Your task to perform on an android device: turn pop-ups off in chrome Image 0: 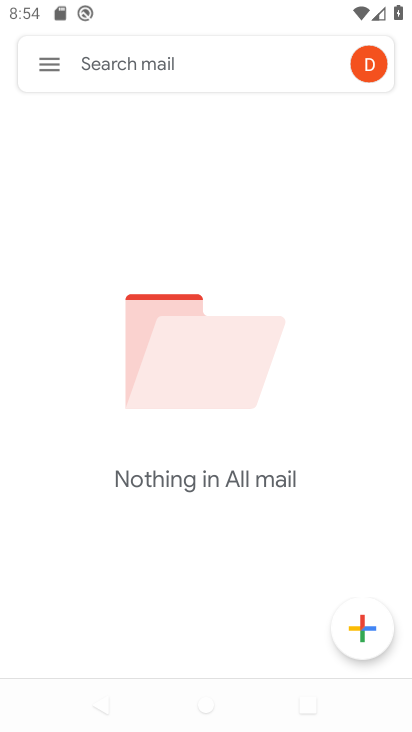
Step 0: drag from (348, 575) to (293, 162)
Your task to perform on an android device: turn pop-ups off in chrome Image 1: 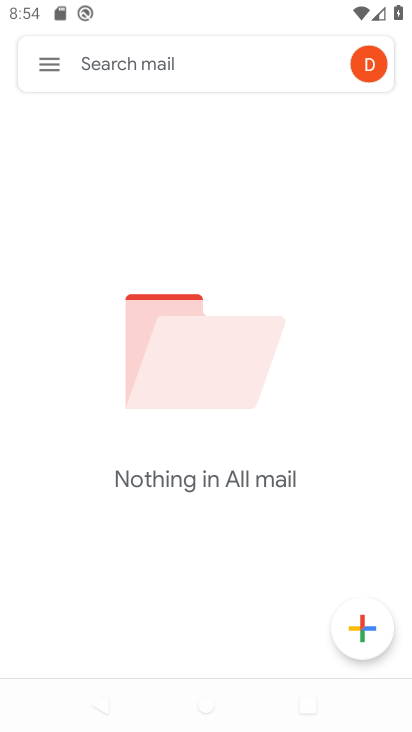
Step 1: press back button
Your task to perform on an android device: turn pop-ups off in chrome Image 2: 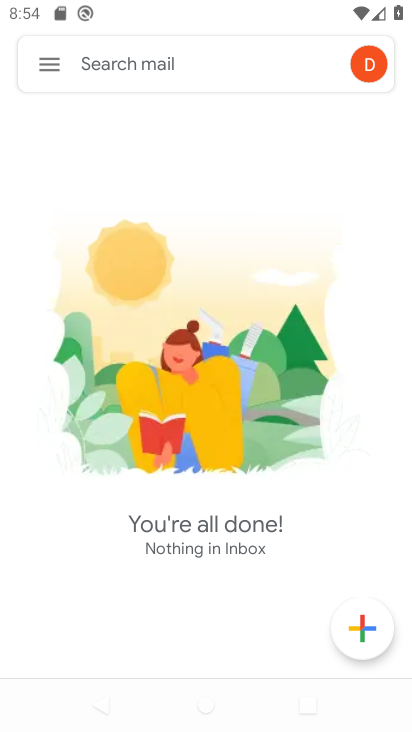
Step 2: press home button
Your task to perform on an android device: turn pop-ups off in chrome Image 3: 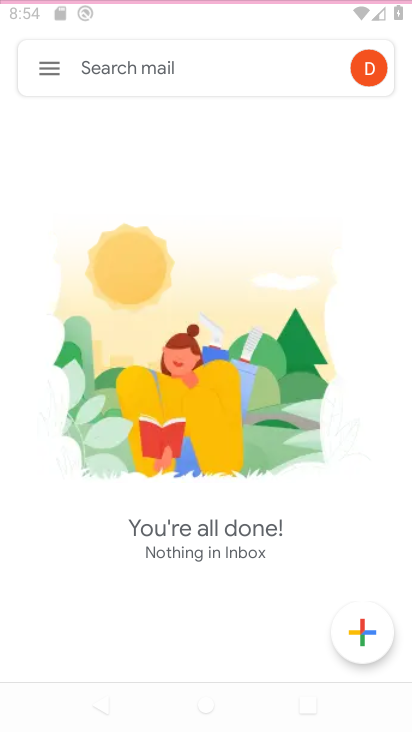
Step 3: press home button
Your task to perform on an android device: turn pop-ups off in chrome Image 4: 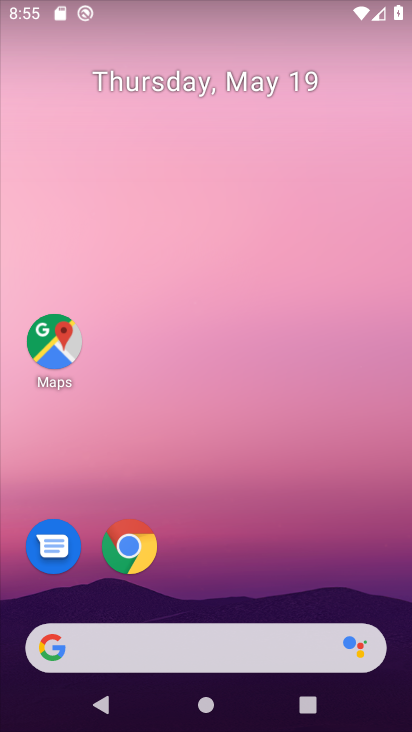
Step 4: drag from (271, 669) to (180, 110)
Your task to perform on an android device: turn pop-ups off in chrome Image 5: 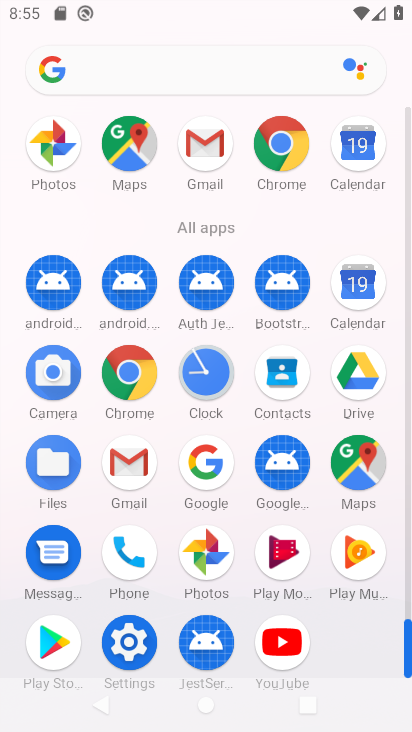
Step 5: click (274, 149)
Your task to perform on an android device: turn pop-ups off in chrome Image 6: 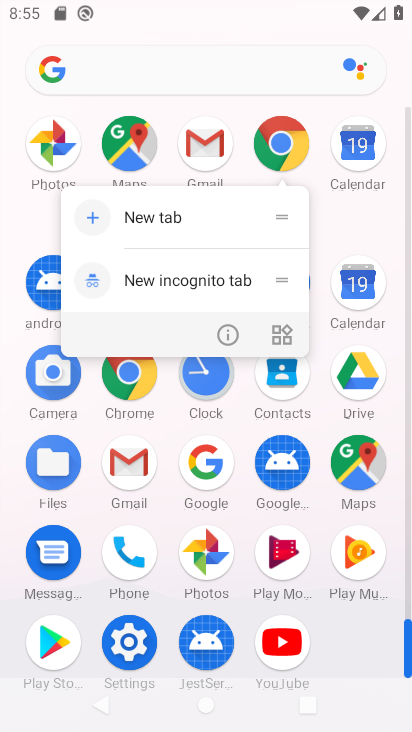
Step 6: click (272, 128)
Your task to perform on an android device: turn pop-ups off in chrome Image 7: 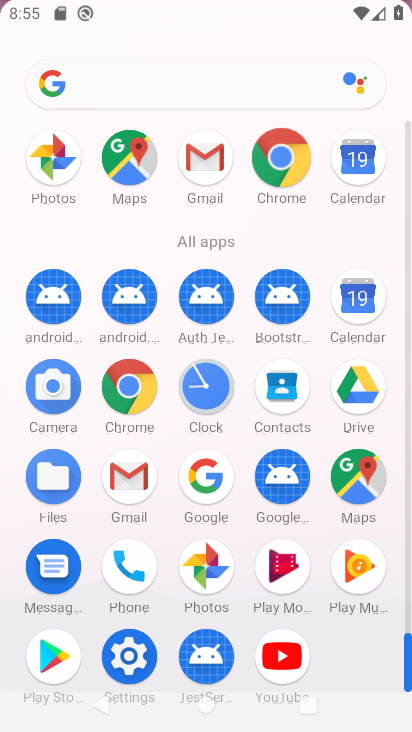
Step 7: click (293, 147)
Your task to perform on an android device: turn pop-ups off in chrome Image 8: 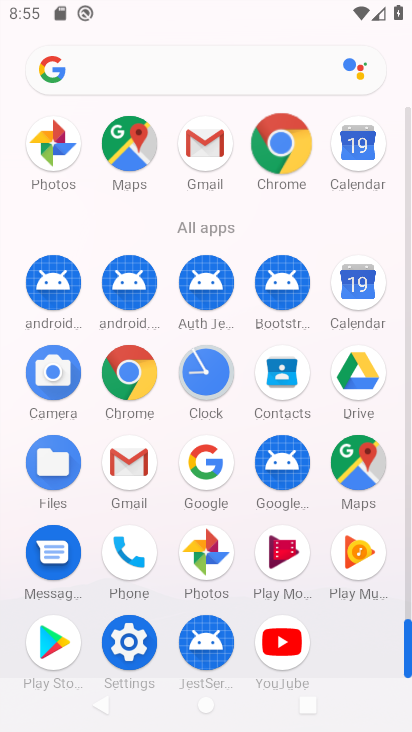
Step 8: click (293, 147)
Your task to perform on an android device: turn pop-ups off in chrome Image 9: 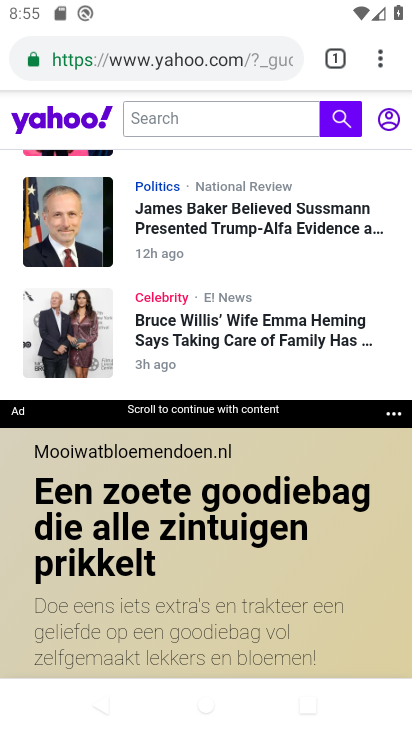
Step 9: press back button
Your task to perform on an android device: turn pop-ups off in chrome Image 10: 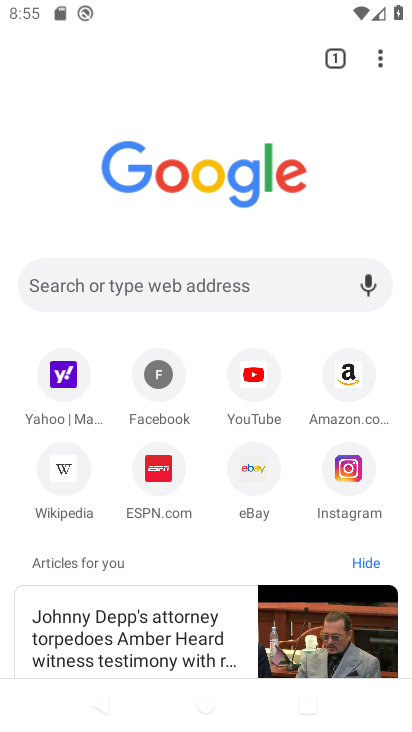
Step 10: drag from (378, 59) to (164, 494)
Your task to perform on an android device: turn pop-ups off in chrome Image 11: 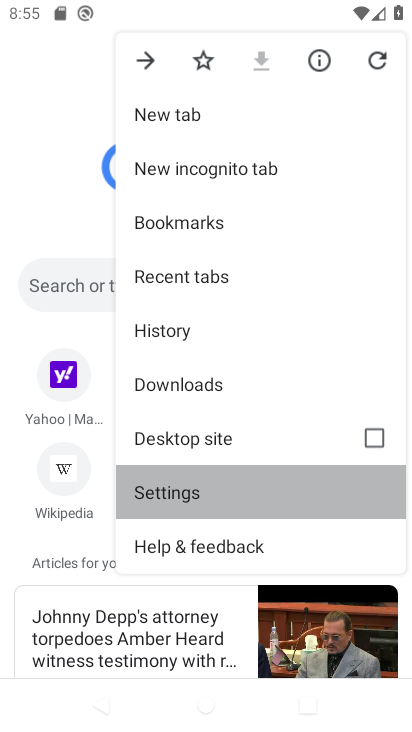
Step 11: click (167, 496)
Your task to perform on an android device: turn pop-ups off in chrome Image 12: 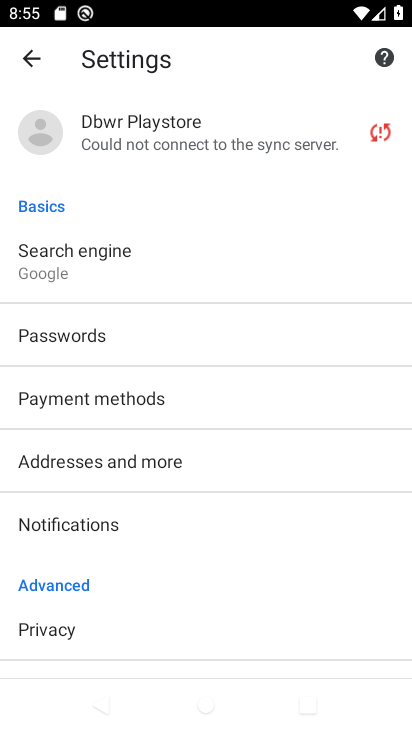
Step 12: drag from (169, 455) to (201, 210)
Your task to perform on an android device: turn pop-ups off in chrome Image 13: 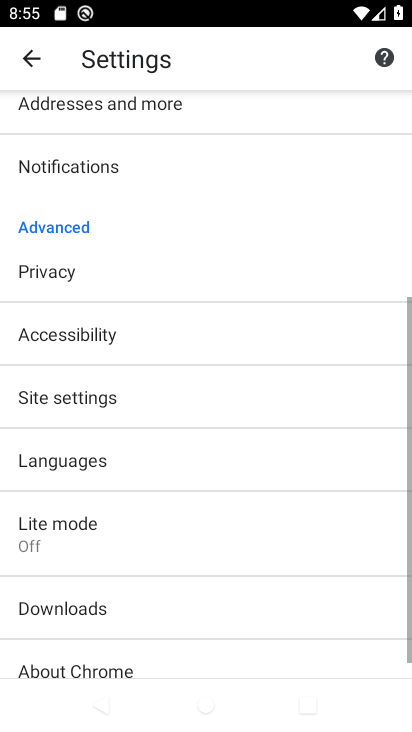
Step 13: drag from (208, 484) to (193, 157)
Your task to perform on an android device: turn pop-ups off in chrome Image 14: 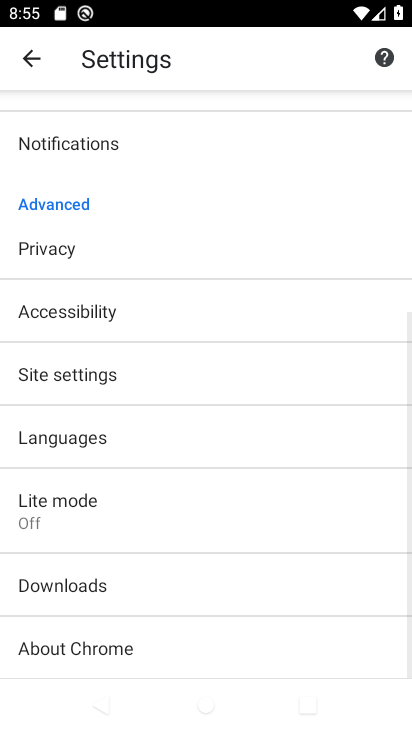
Step 14: drag from (157, 476) to (155, 148)
Your task to perform on an android device: turn pop-ups off in chrome Image 15: 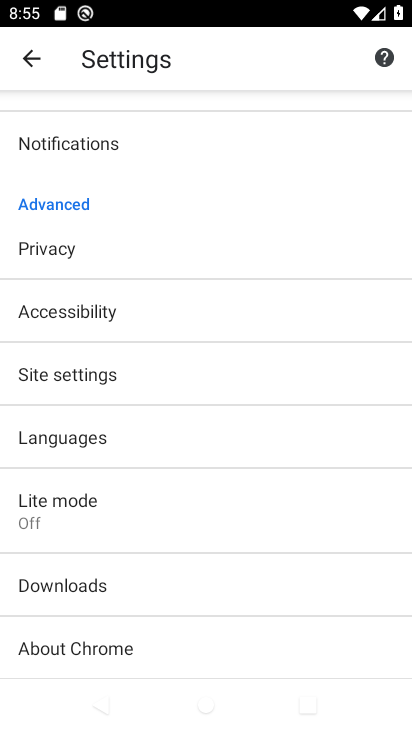
Step 15: click (53, 376)
Your task to perform on an android device: turn pop-ups off in chrome Image 16: 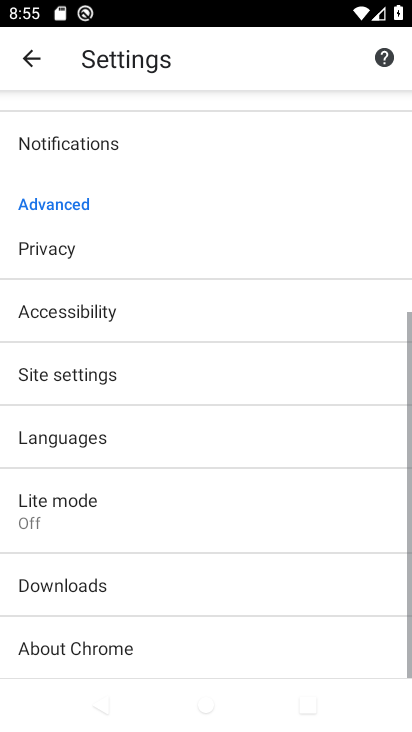
Step 16: click (54, 377)
Your task to perform on an android device: turn pop-ups off in chrome Image 17: 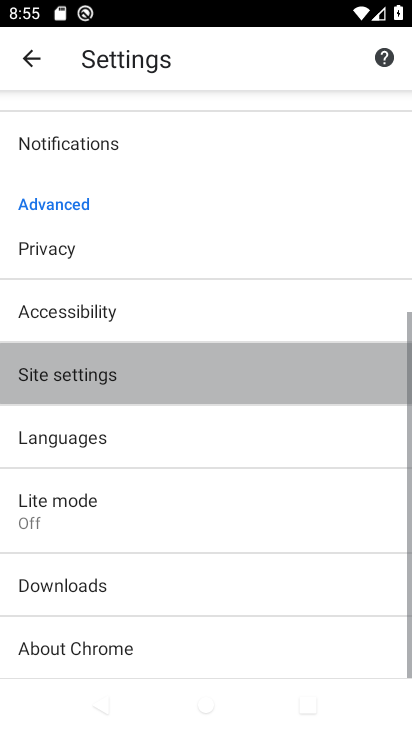
Step 17: click (54, 377)
Your task to perform on an android device: turn pop-ups off in chrome Image 18: 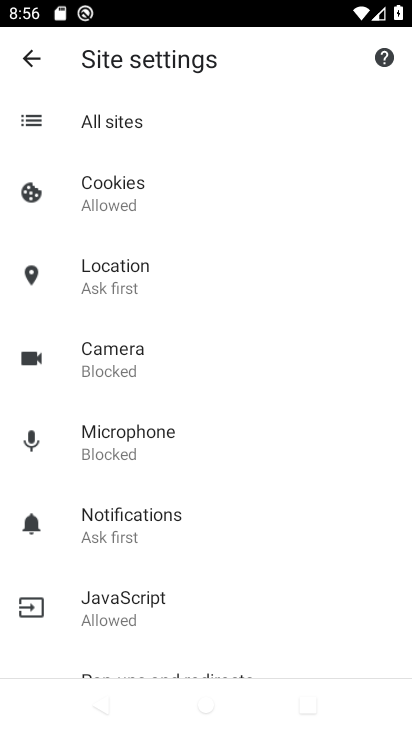
Step 18: drag from (154, 481) to (148, 126)
Your task to perform on an android device: turn pop-ups off in chrome Image 19: 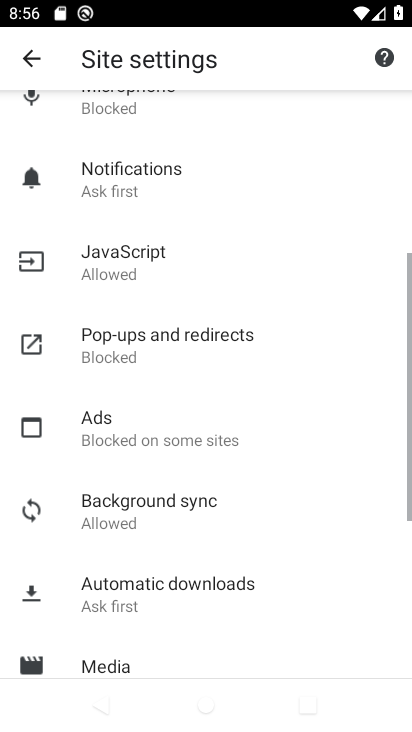
Step 19: drag from (155, 370) to (187, 51)
Your task to perform on an android device: turn pop-ups off in chrome Image 20: 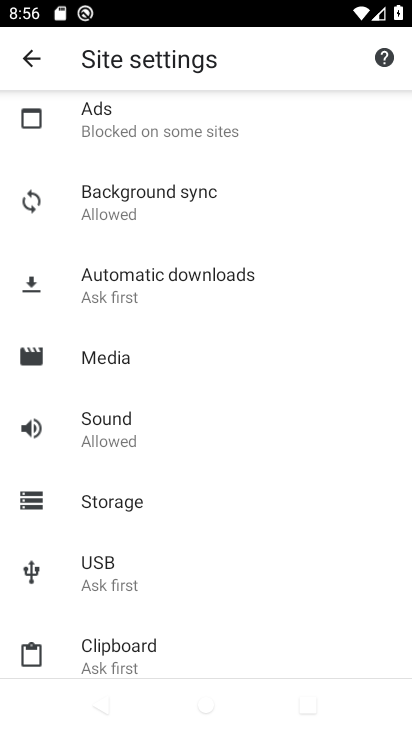
Step 20: drag from (114, 289) to (142, 584)
Your task to perform on an android device: turn pop-ups off in chrome Image 21: 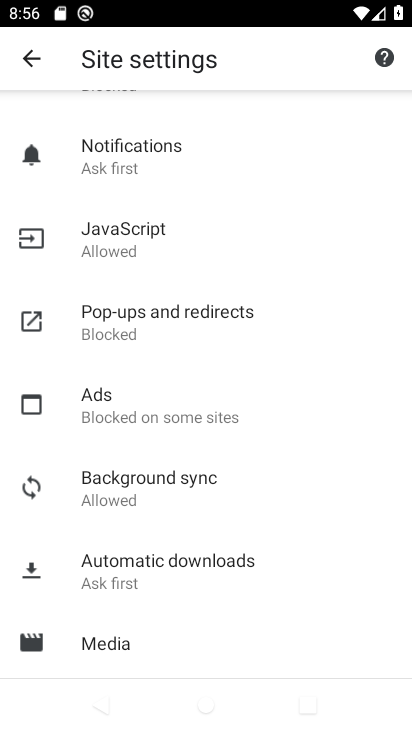
Step 21: click (101, 323)
Your task to perform on an android device: turn pop-ups off in chrome Image 22: 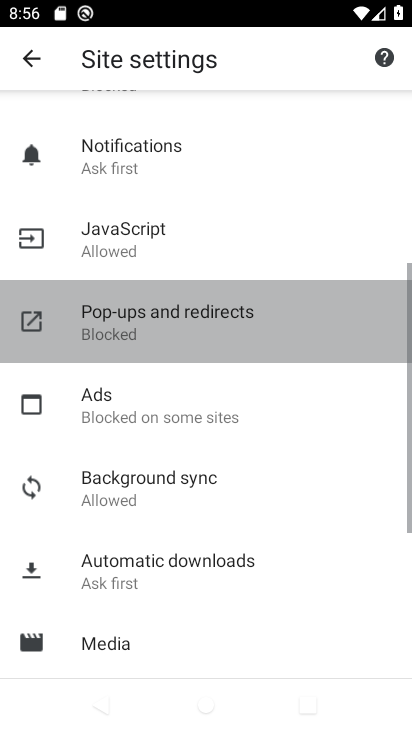
Step 22: click (120, 324)
Your task to perform on an android device: turn pop-ups off in chrome Image 23: 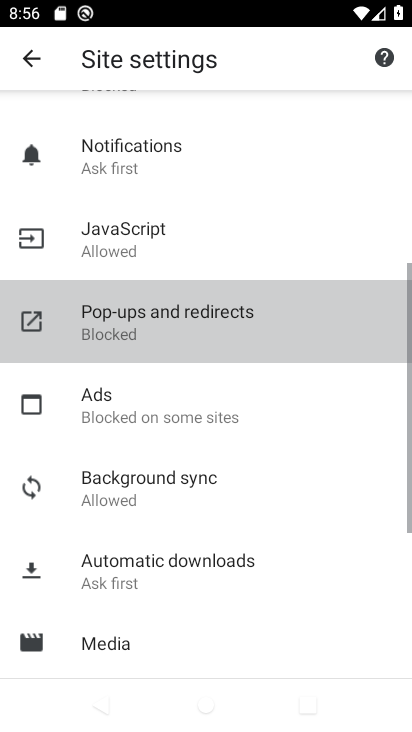
Step 23: click (121, 325)
Your task to perform on an android device: turn pop-ups off in chrome Image 24: 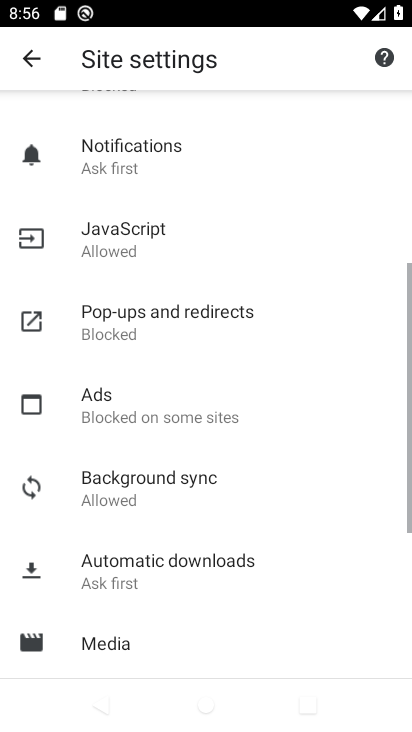
Step 24: click (122, 325)
Your task to perform on an android device: turn pop-ups off in chrome Image 25: 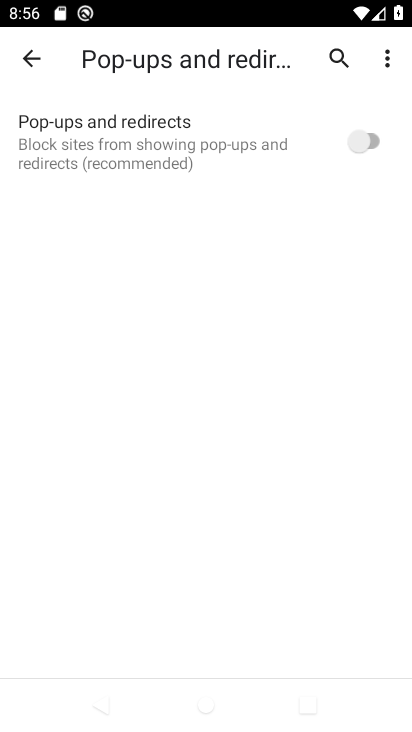
Step 25: click (362, 145)
Your task to perform on an android device: turn pop-ups off in chrome Image 26: 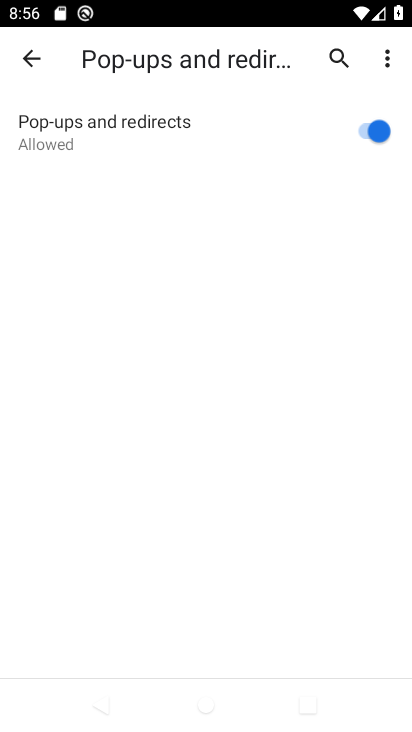
Step 26: task complete